Your task to perform on an android device: turn on javascript in the chrome app Image 0: 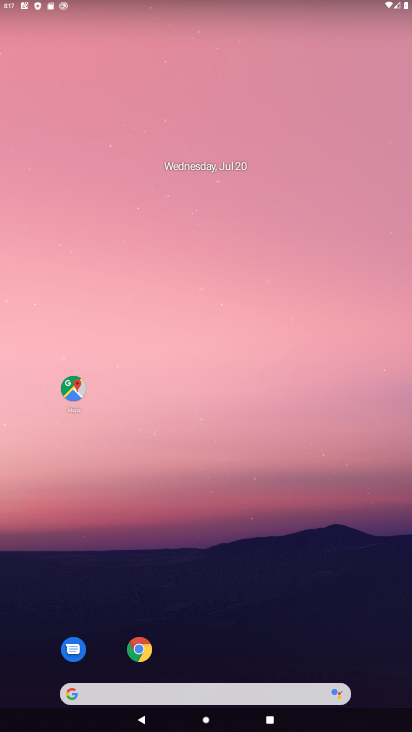
Step 0: click (154, 652)
Your task to perform on an android device: turn on javascript in the chrome app Image 1: 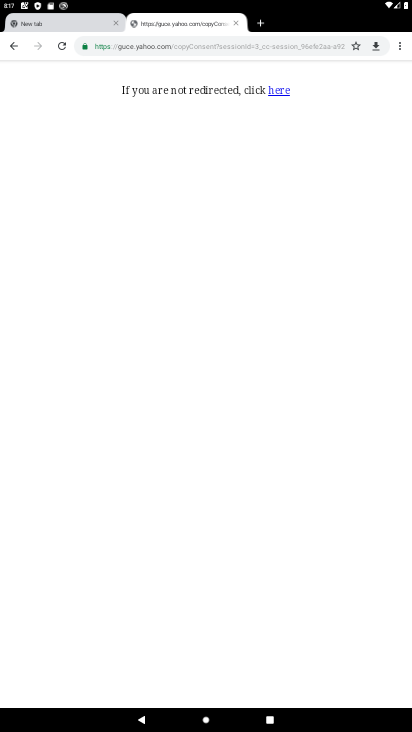
Step 1: click (405, 55)
Your task to perform on an android device: turn on javascript in the chrome app Image 2: 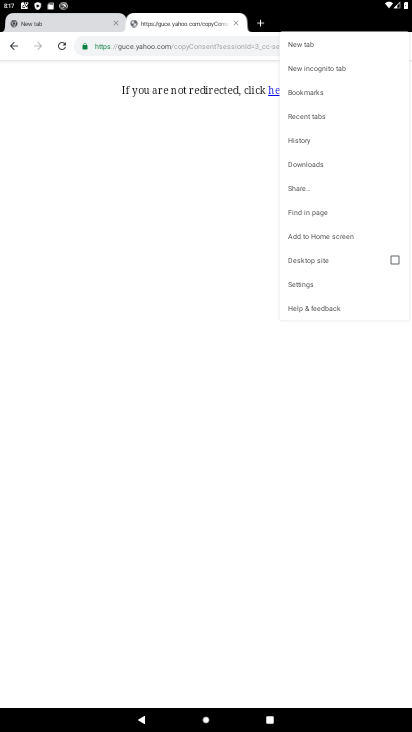
Step 2: click (319, 283)
Your task to perform on an android device: turn on javascript in the chrome app Image 3: 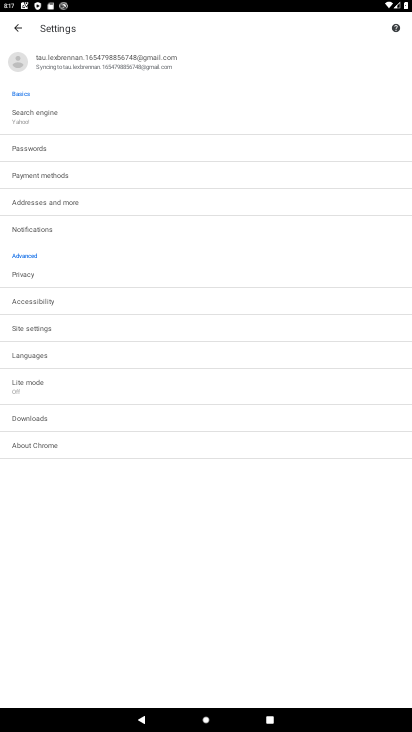
Step 3: click (138, 330)
Your task to perform on an android device: turn on javascript in the chrome app Image 4: 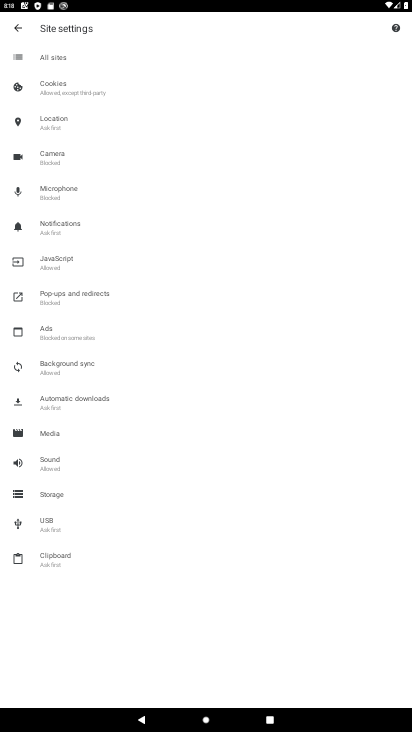
Step 4: click (95, 260)
Your task to perform on an android device: turn on javascript in the chrome app Image 5: 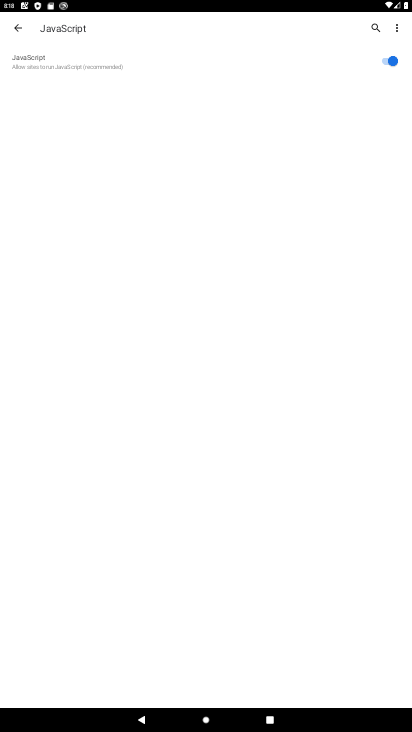
Step 5: click (377, 64)
Your task to perform on an android device: turn on javascript in the chrome app Image 6: 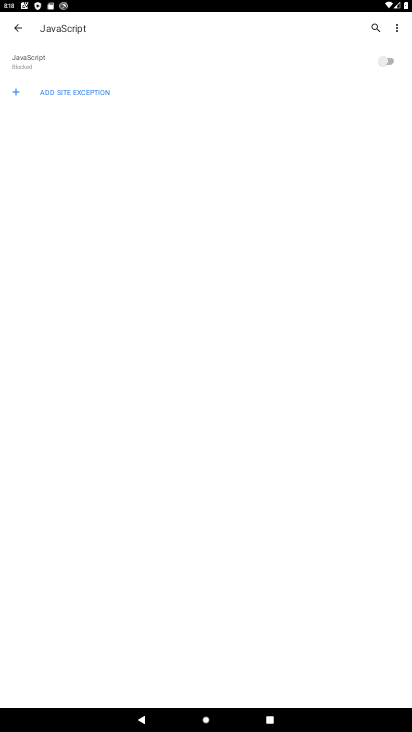
Step 6: task complete